Your task to perform on an android device: Show me popular games on the Play Store Image 0: 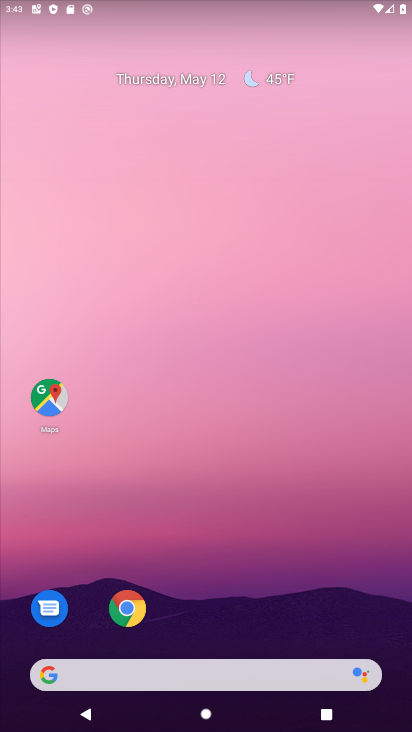
Step 0: drag from (201, 625) to (345, 3)
Your task to perform on an android device: Show me popular games on the Play Store Image 1: 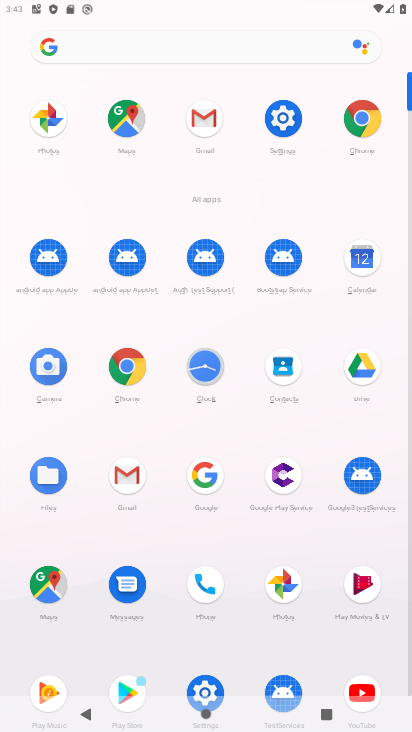
Step 1: click (121, 683)
Your task to perform on an android device: Show me popular games on the Play Store Image 2: 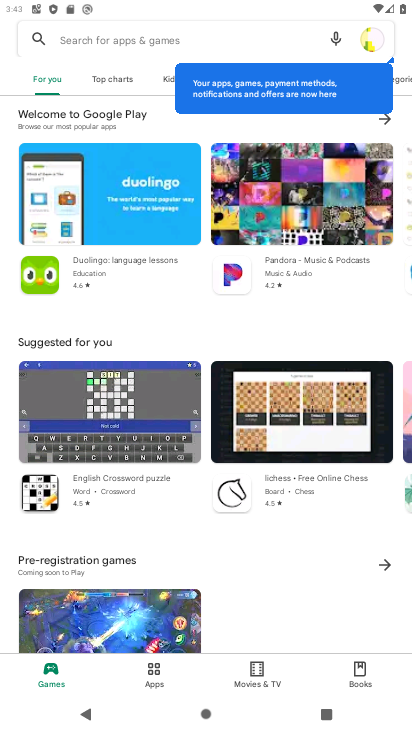
Step 2: click (278, 548)
Your task to perform on an android device: Show me popular games on the Play Store Image 3: 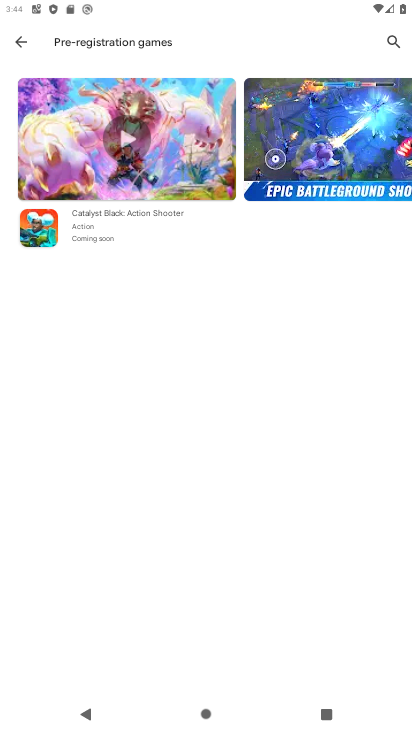
Step 3: click (14, 37)
Your task to perform on an android device: Show me popular games on the Play Store Image 4: 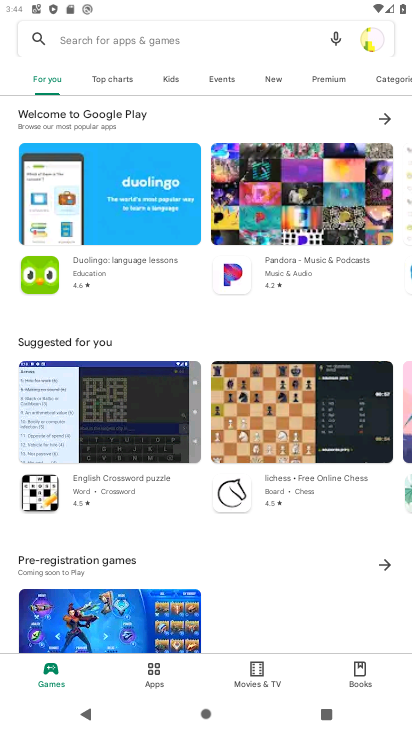
Step 4: click (124, 73)
Your task to perform on an android device: Show me popular games on the Play Store Image 5: 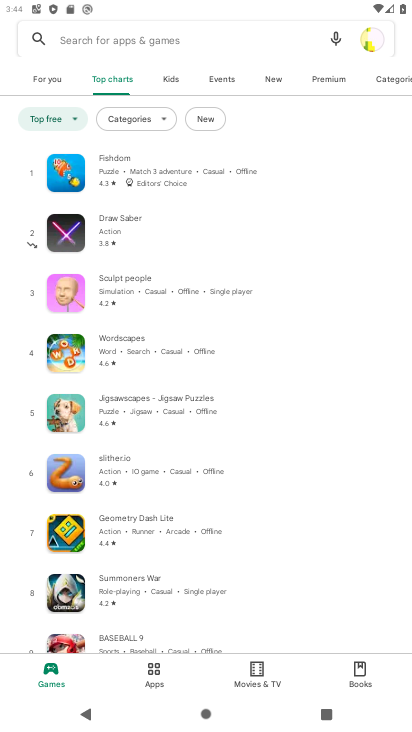
Step 5: task complete